Your task to perform on an android device: change notifications settings Image 0: 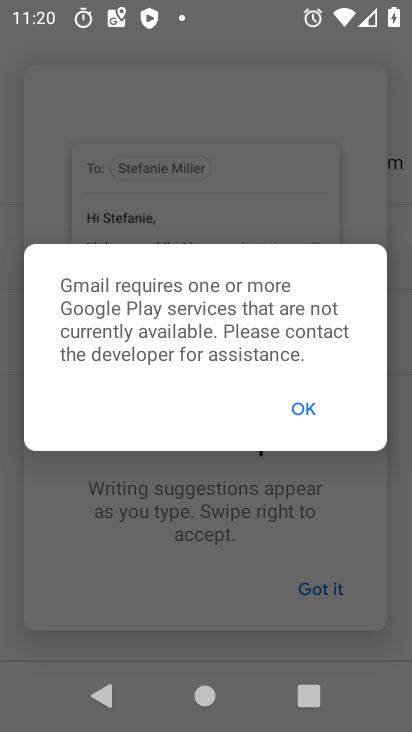
Step 0: press home button
Your task to perform on an android device: change notifications settings Image 1: 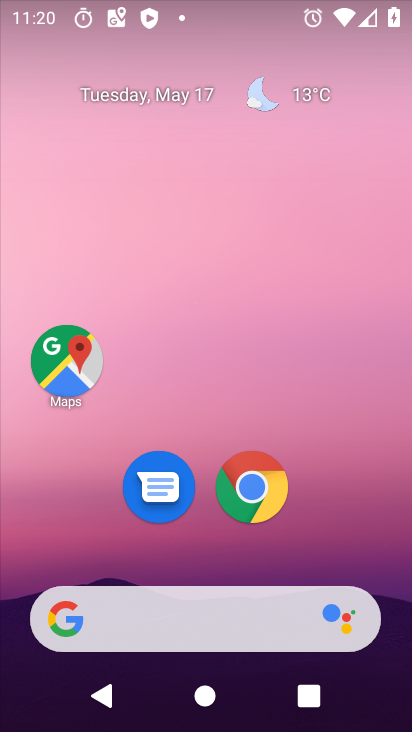
Step 1: drag from (235, 716) to (235, 154)
Your task to perform on an android device: change notifications settings Image 2: 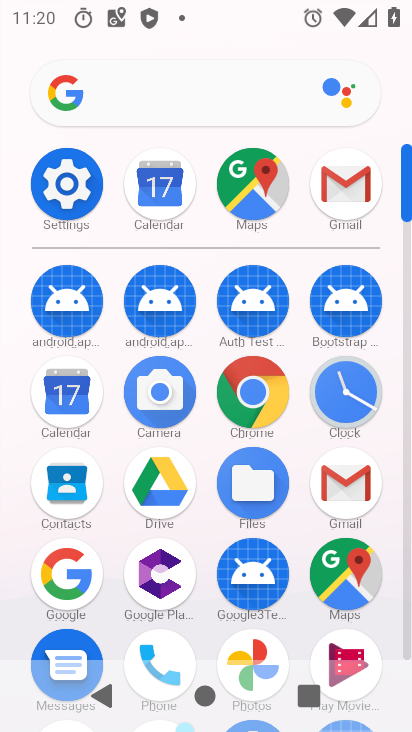
Step 2: click (68, 181)
Your task to perform on an android device: change notifications settings Image 3: 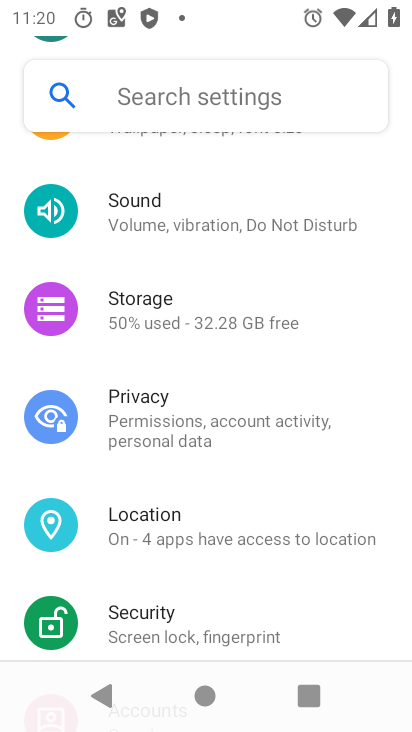
Step 3: drag from (282, 168) to (261, 557)
Your task to perform on an android device: change notifications settings Image 4: 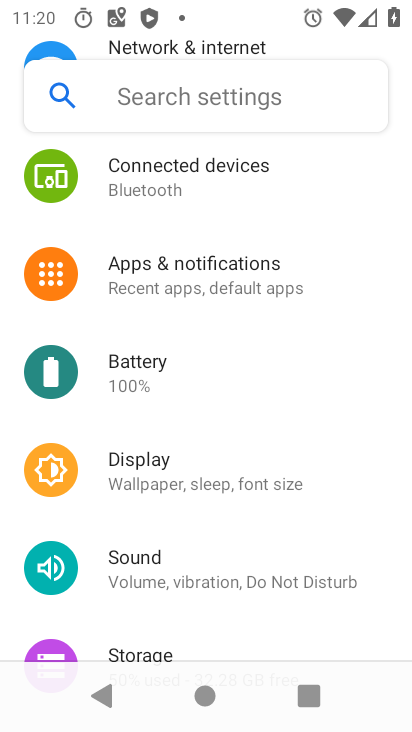
Step 4: click (187, 275)
Your task to perform on an android device: change notifications settings Image 5: 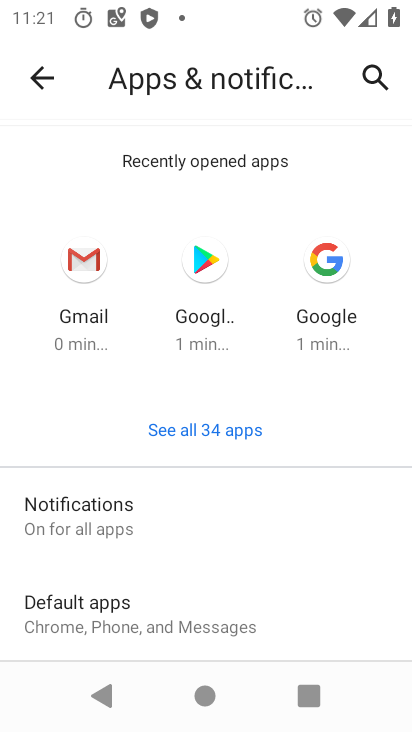
Step 5: drag from (231, 603) to (231, 423)
Your task to perform on an android device: change notifications settings Image 6: 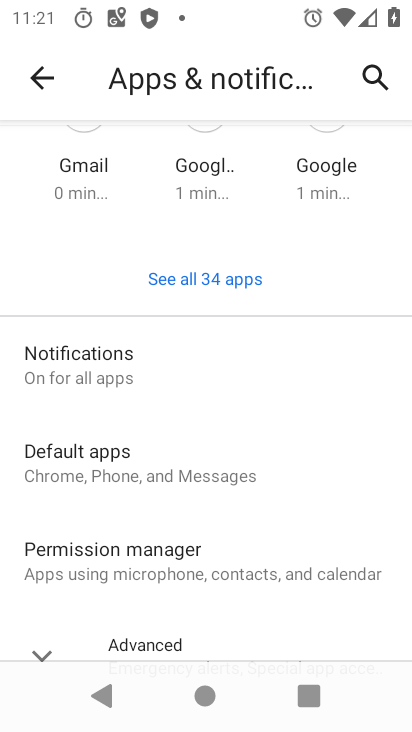
Step 6: click (80, 366)
Your task to perform on an android device: change notifications settings Image 7: 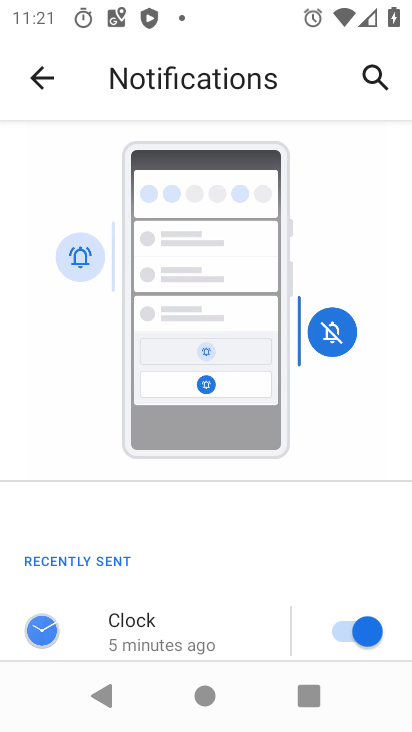
Step 7: drag from (225, 635) to (226, 325)
Your task to perform on an android device: change notifications settings Image 8: 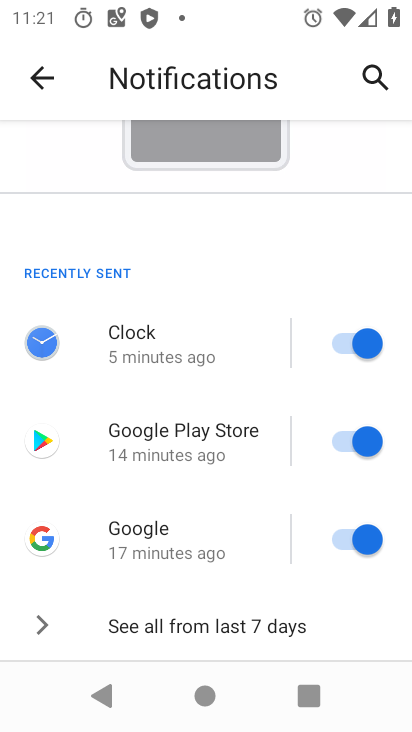
Step 8: drag from (236, 615) to (235, 376)
Your task to perform on an android device: change notifications settings Image 9: 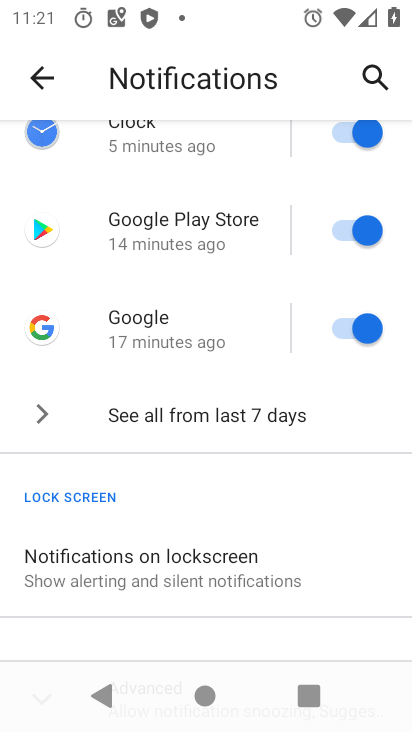
Step 9: drag from (221, 639) to (223, 370)
Your task to perform on an android device: change notifications settings Image 10: 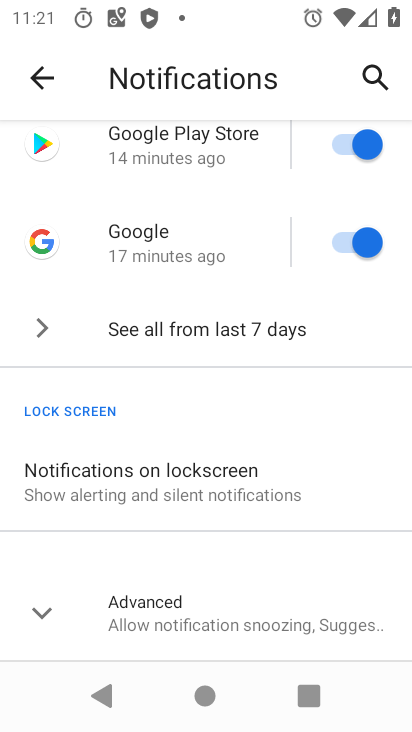
Step 10: click (181, 616)
Your task to perform on an android device: change notifications settings Image 11: 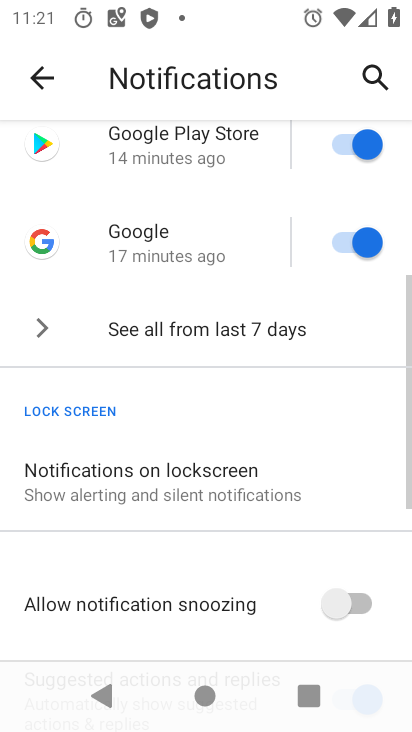
Step 11: drag from (198, 621) to (198, 363)
Your task to perform on an android device: change notifications settings Image 12: 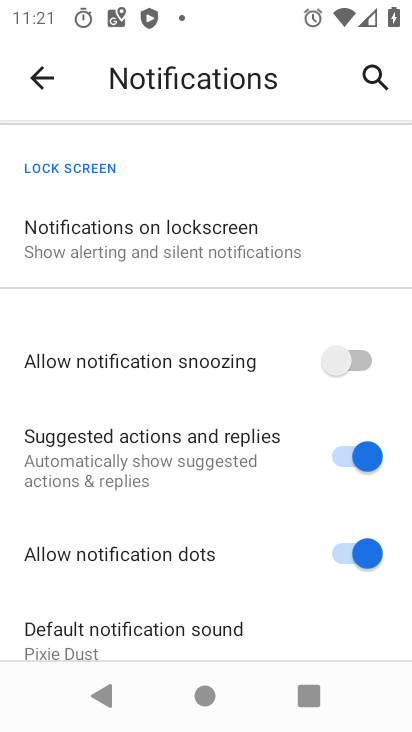
Step 12: click (363, 358)
Your task to perform on an android device: change notifications settings Image 13: 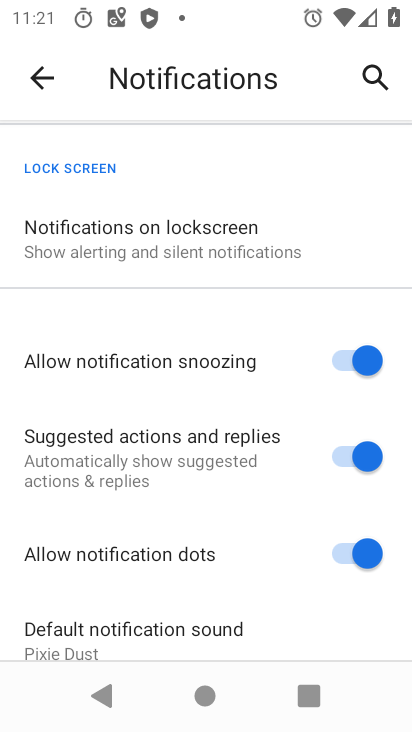
Step 13: task complete